Your task to perform on an android device: Is it going to rain today? Image 0: 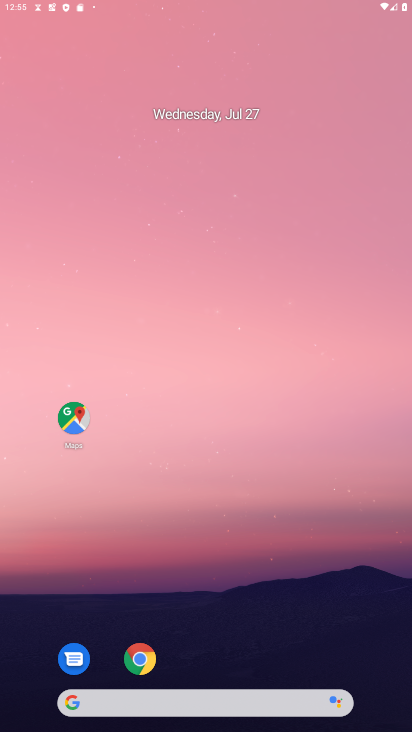
Step 0: press home button
Your task to perform on an android device: Is it going to rain today? Image 1: 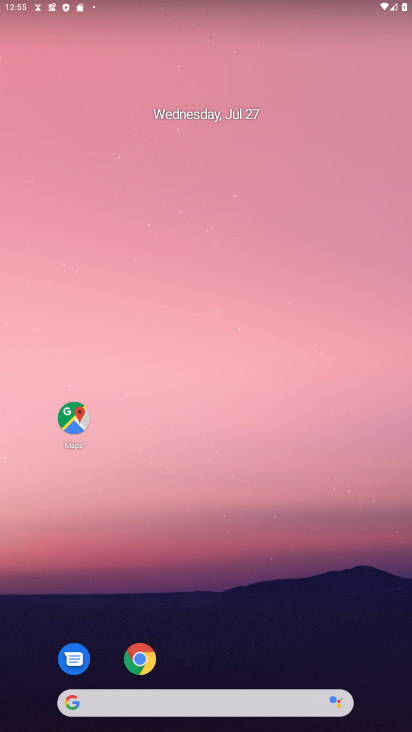
Step 1: click (170, 702)
Your task to perform on an android device: Is it going to rain today? Image 2: 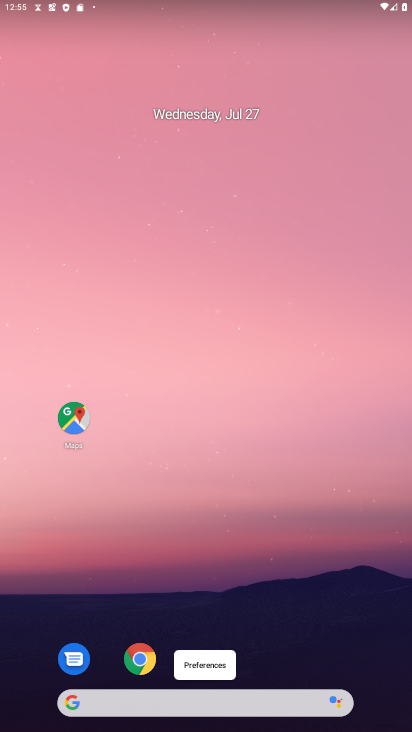
Step 2: click (159, 696)
Your task to perform on an android device: Is it going to rain today? Image 3: 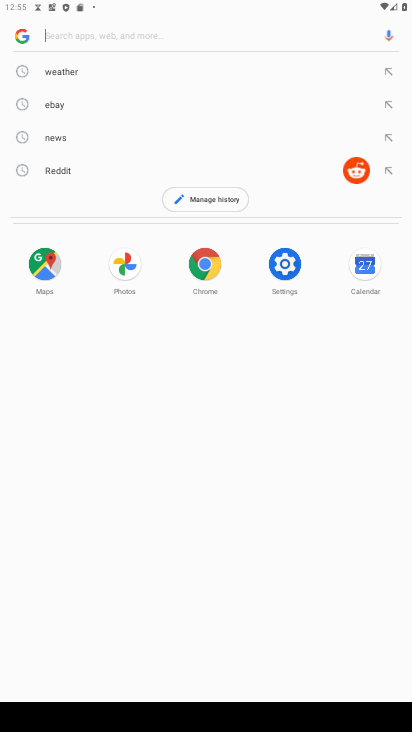
Step 3: click (65, 70)
Your task to perform on an android device: Is it going to rain today? Image 4: 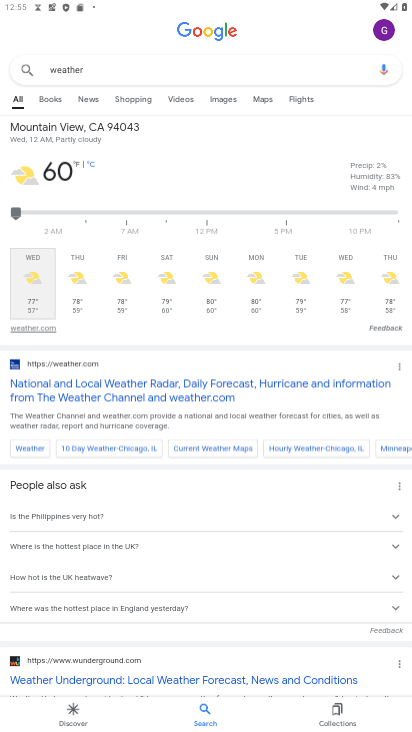
Step 4: click (164, 274)
Your task to perform on an android device: Is it going to rain today? Image 5: 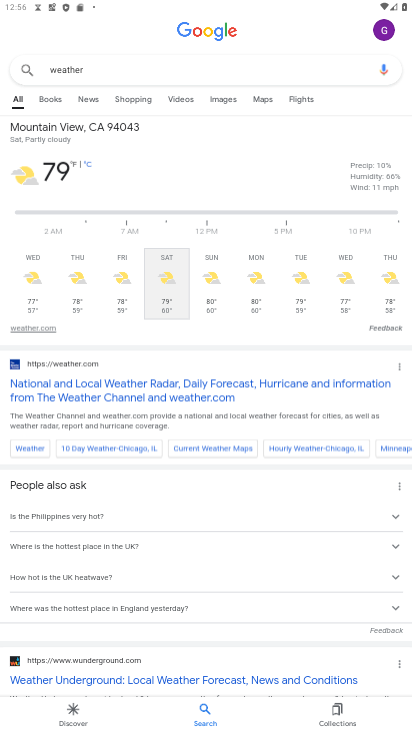
Step 5: task complete